Your task to perform on an android device: Open calendar and show me the third week of next month Image 0: 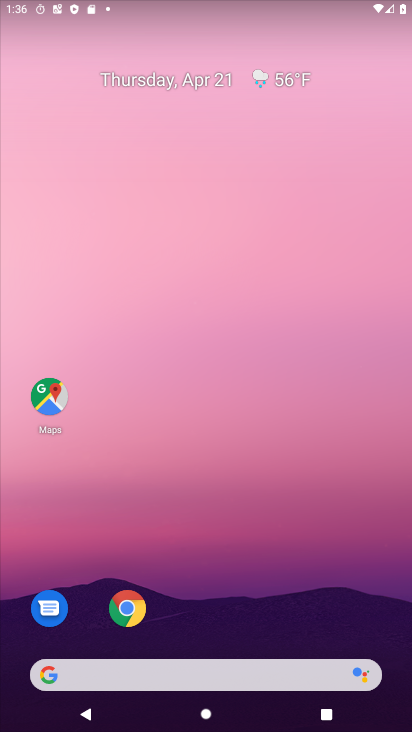
Step 0: drag from (259, 624) to (243, 26)
Your task to perform on an android device: Open calendar and show me the third week of next month Image 1: 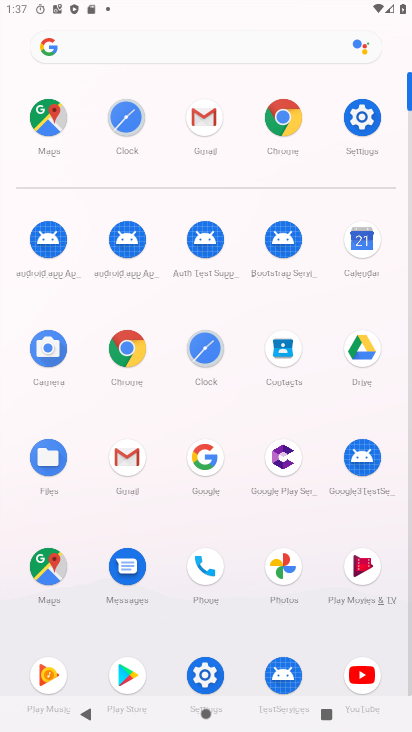
Step 1: click (358, 243)
Your task to perform on an android device: Open calendar and show me the third week of next month Image 2: 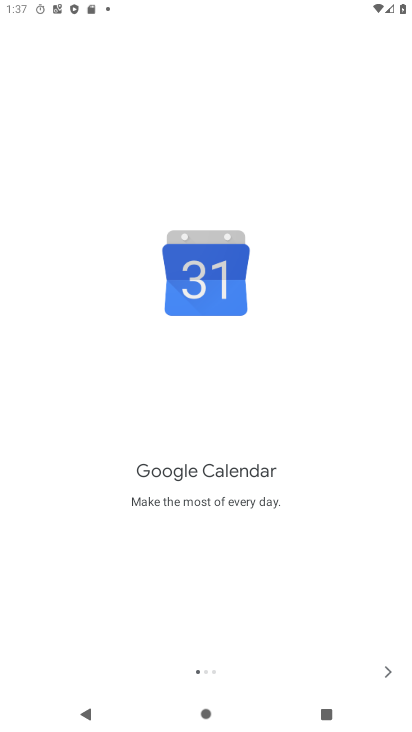
Step 2: click (386, 667)
Your task to perform on an android device: Open calendar and show me the third week of next month Image 3: 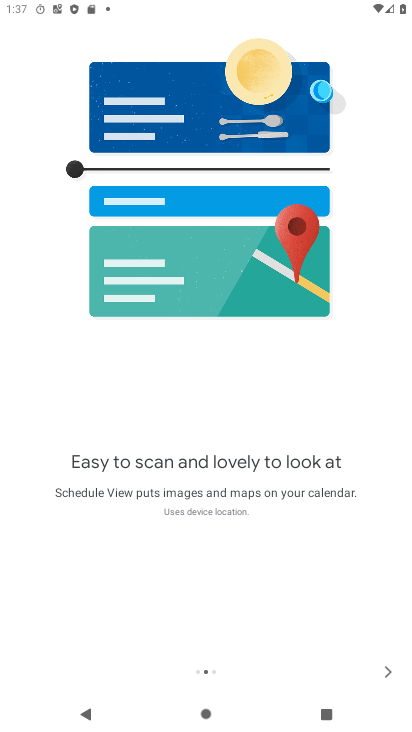
Step 3: click (386, 667)
Your task to perform on an android device: Open calendar and show me the third week of next month Image 4: 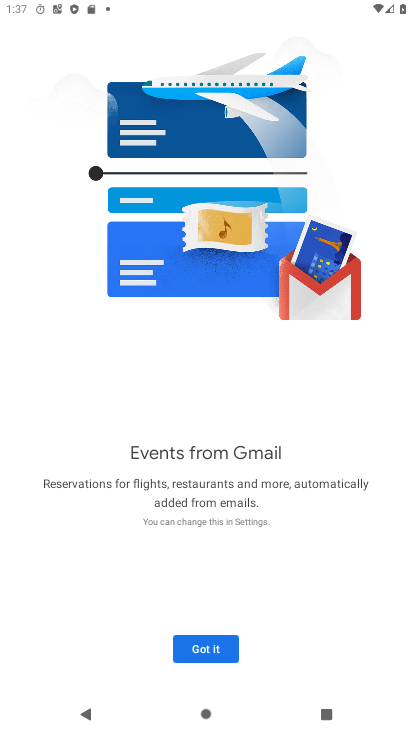
Step 4: click (206, 652)
Your task to perform on an android device: Open calendar and show me the third week of next month Image 5: 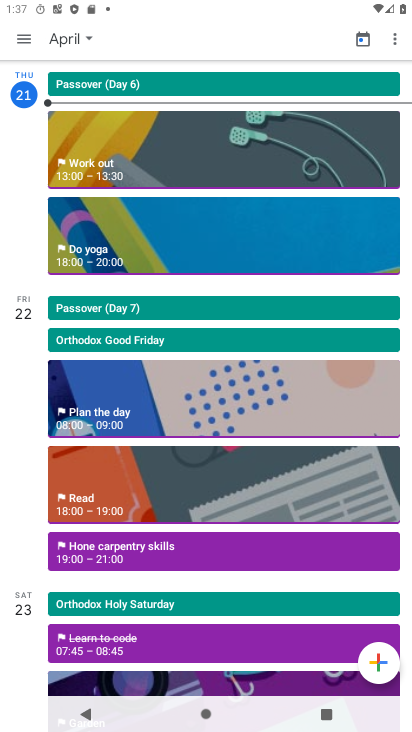
Step 5: click (25, 35)
Your task to perform on an android device: Open calendar and show me the third week of next month Image 6: 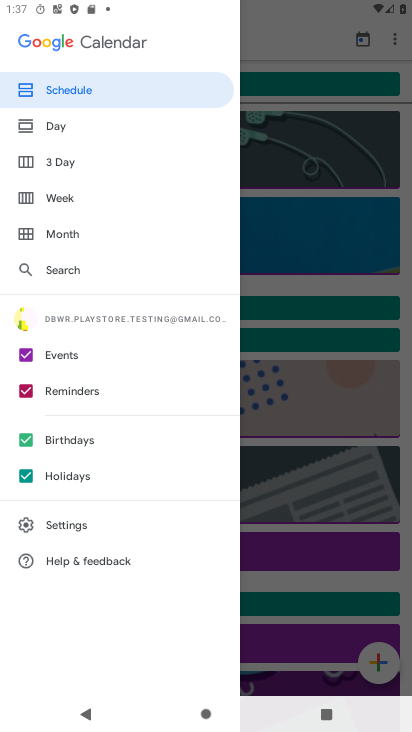
Step 6: click (65, 199)
Your task to perform on an android device: Open calendar and show me the third week of next month Image 7: 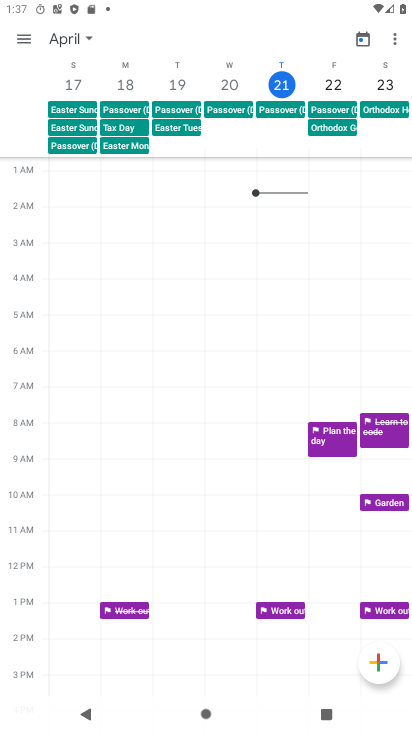
Step 7: click (85, 33)
Your task to perform on an android device: Open calendar and show me the third week of next month Image 8: 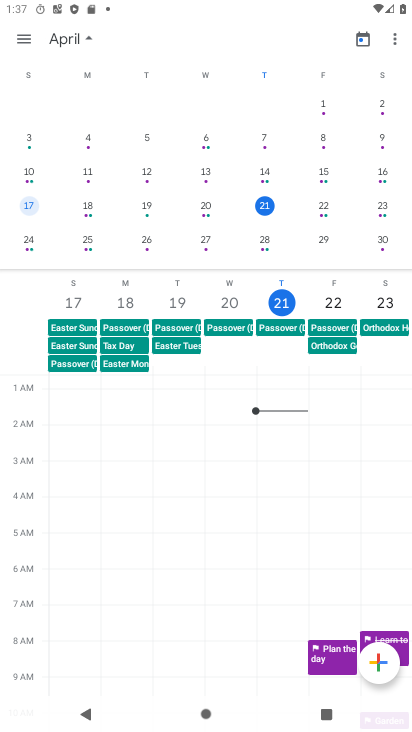
Step 8: drag from (352, 189) to (0, 150)
Your task to perform on an android device: Open calendar and show me the third week of next month Image 9: 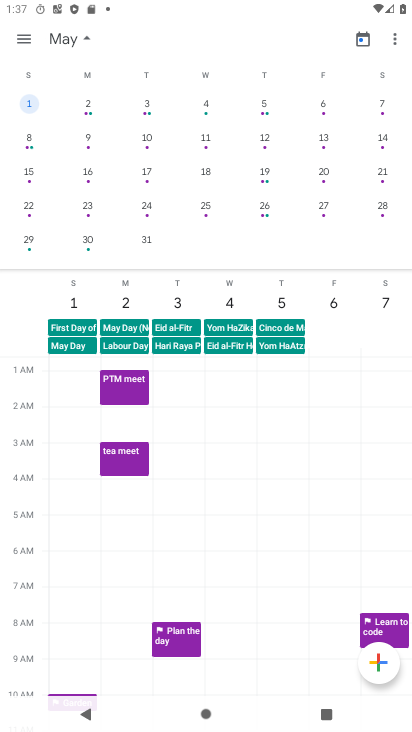
Step 9: click (28, 177)
Your task to perform on an android device: Open calendar and show me the third week of next month Image 10: 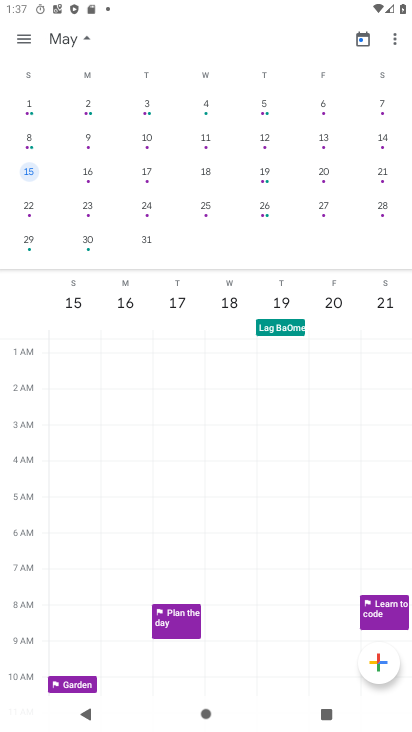
Step 10: task complete